Your task to perform on an android device: Show me recent news Image 0: 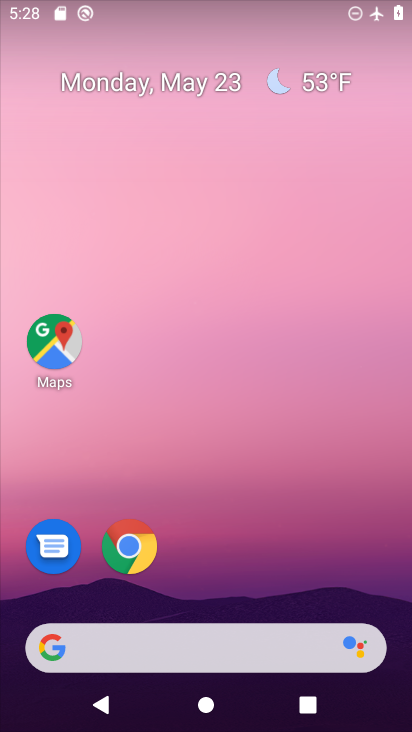
Step 0: click (254, 556)
Your task to perform on an android device: Show me recent news Image 1: 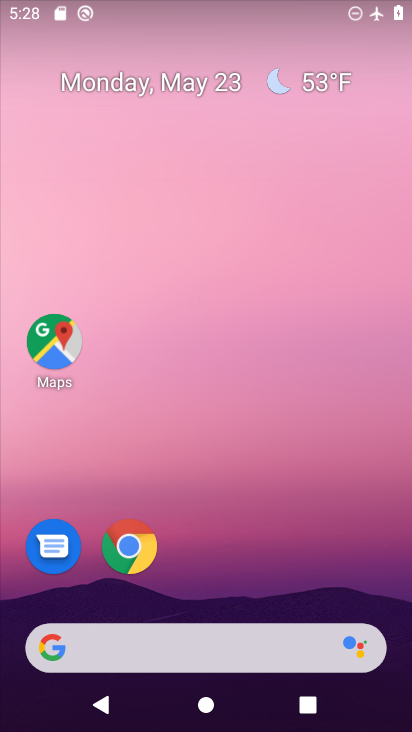
Step 1: click (188, 636)
Your task to perform on an android device: Show me recent news Image 2: 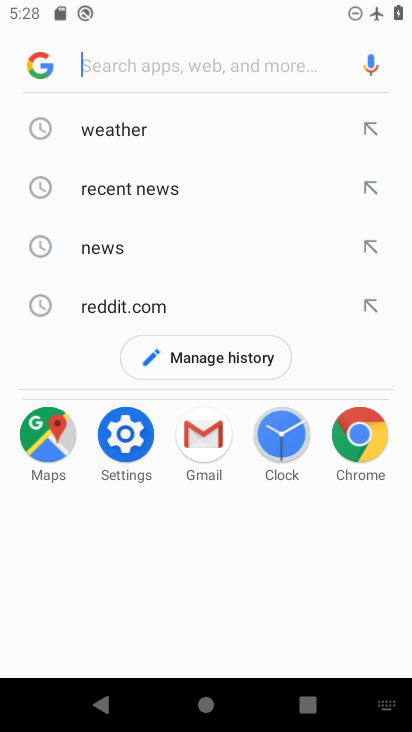
Step 2: click (157, 185)
Your task to perform on an android device: Show me recent news Image 3: 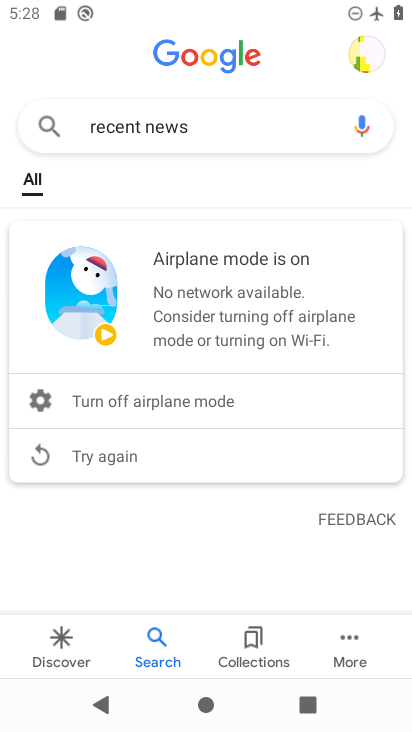
Step 3: task complete